Your task to perform on an android device: Play the new Demi Lovato video on YouTube Image 0: 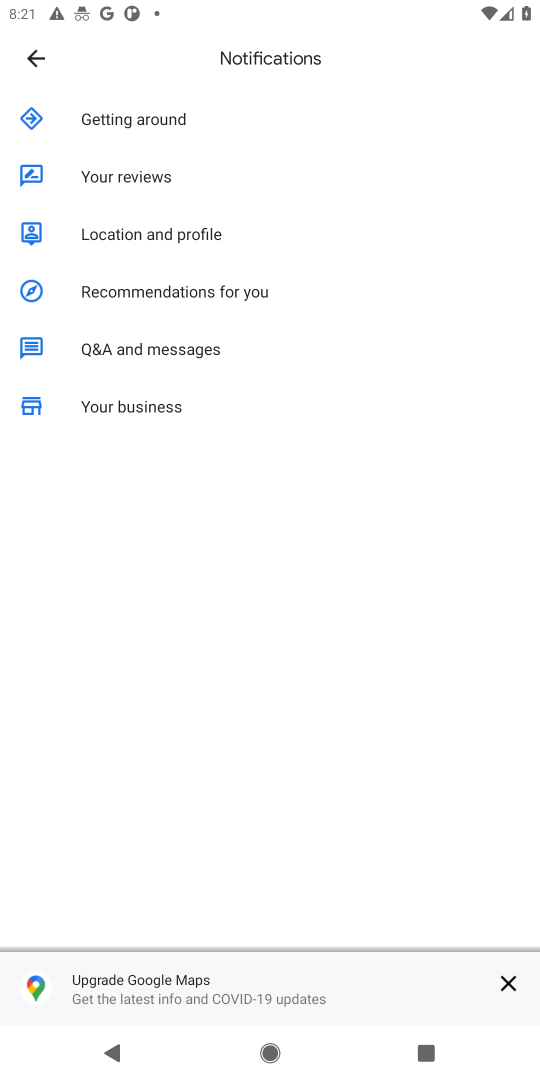
Step 0: press home button
Your task to perform on an android device: Play the new Demi Lovato video on YouTube Image 1: 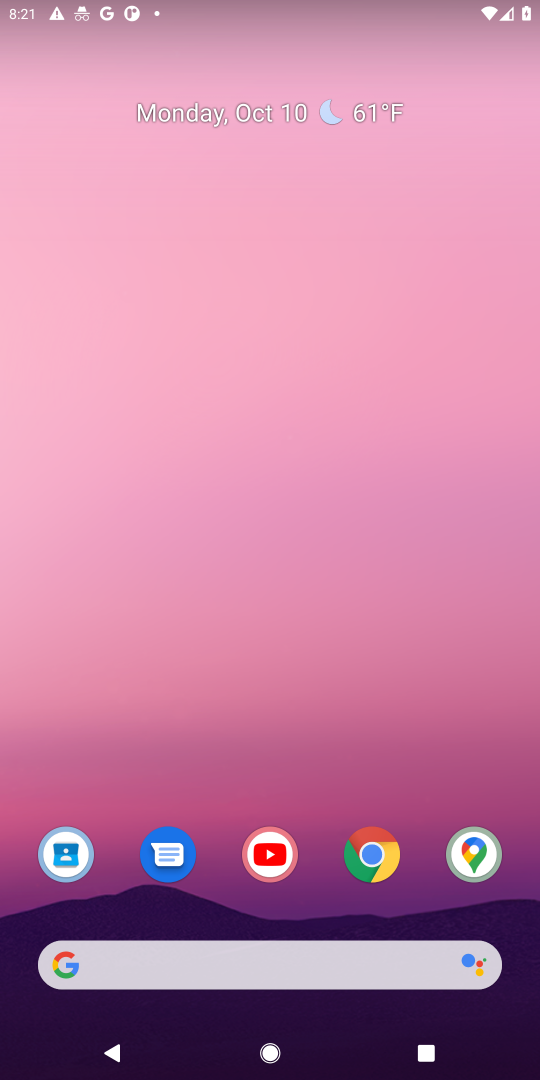
Step 1: click (264, 861)
Your task to perform on an android device: Play the new Demi Lovato video on YouTube Image 2: 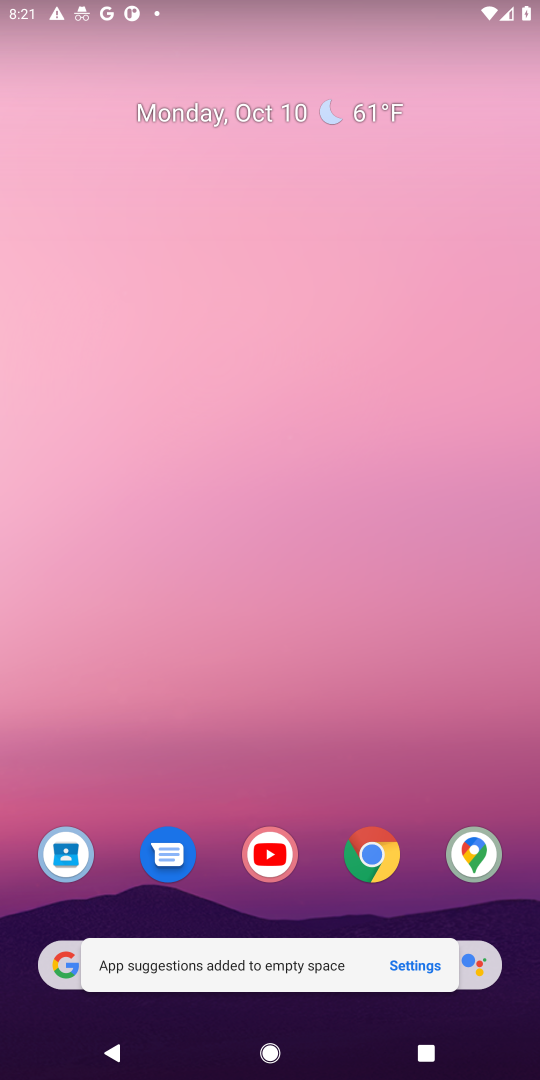
Step 2: click (268, 856)
Your task to perform on an android device: Play the new Demi Lovato video on YouTube Image 3: 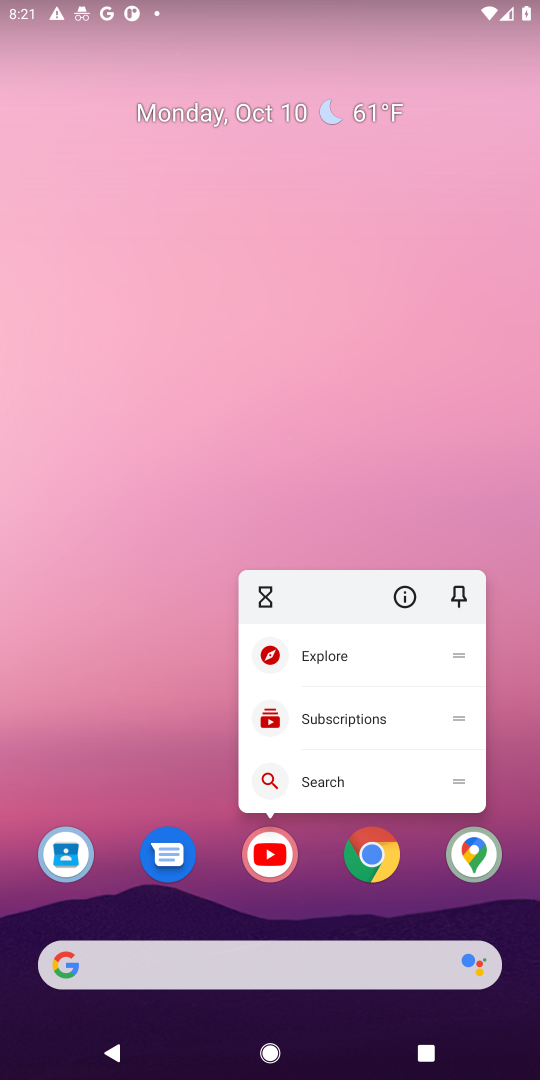
Step 3: click (268, 857)
Your task to perform on an android device: Play the new Demi Lovato video on YouTube Image 4: 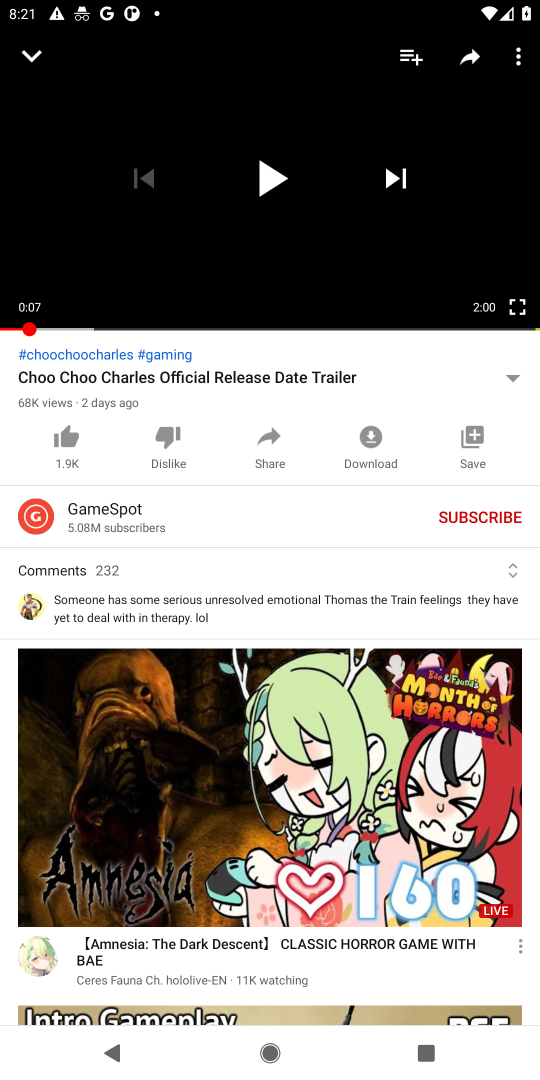
Step 4: press back button
Your task to perform on an android device: Play the new Demi Lovato video on YouTube Image 5: 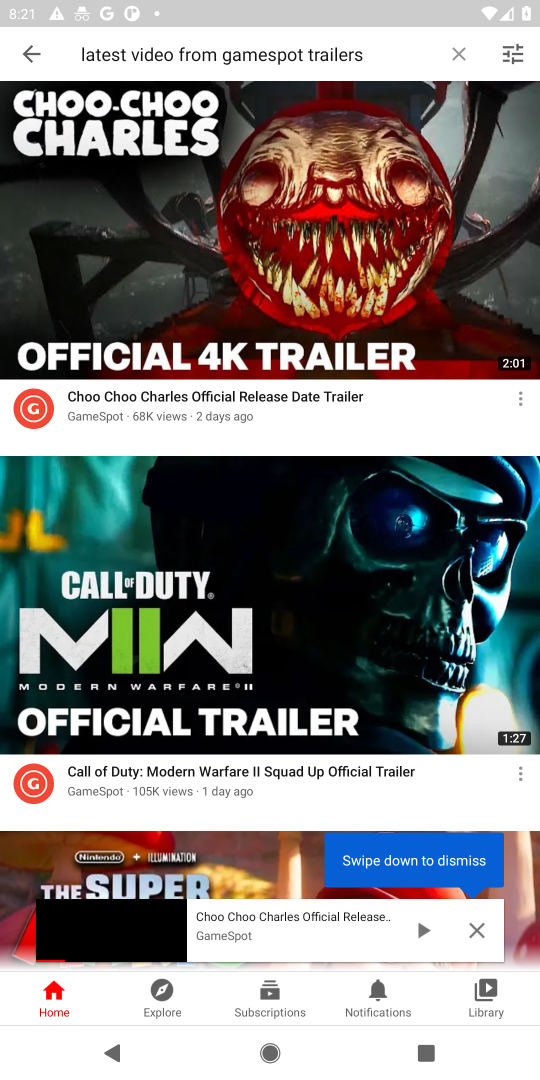
Step 5: click (456, 56)
Your task to perform on an android device: Play the new Demi Lovato video on YouTube Image 6: 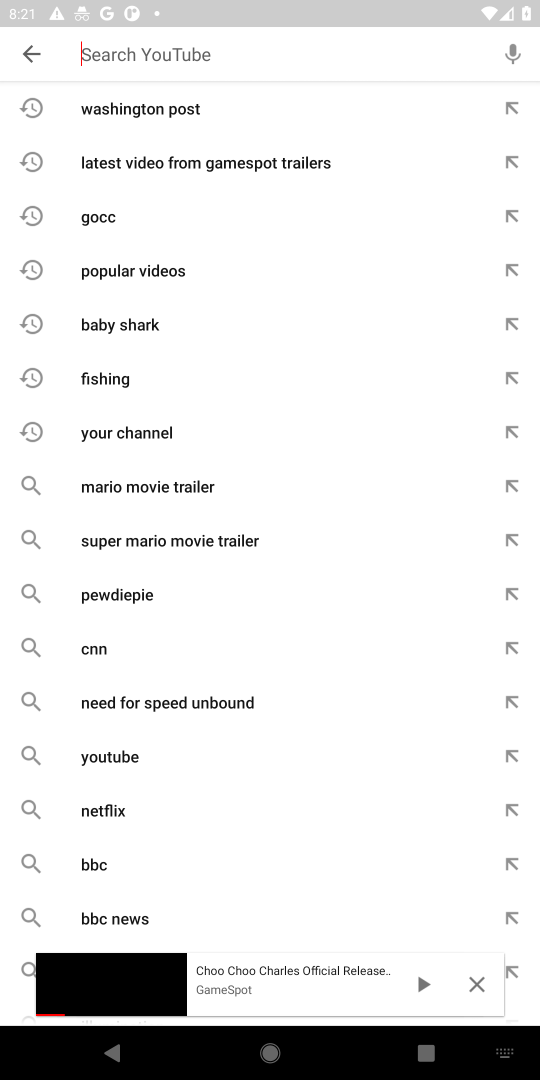
Step 6: click (193, 50)
Your task to perform on an android device: Play the new Demi Lovato video on YouTube Image 7: 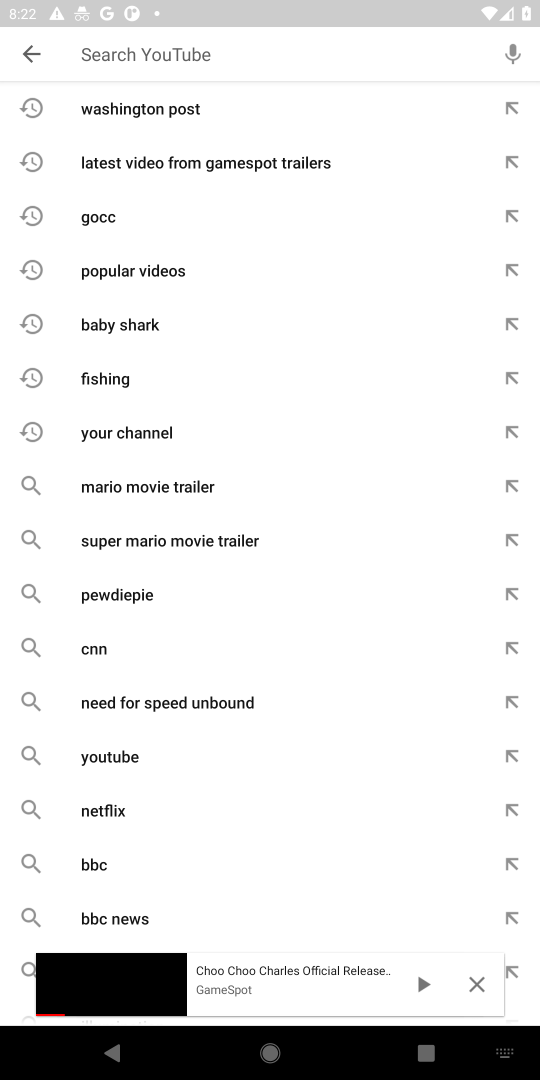
Step 7: type "new Demi Lovato video on YouTube"
Your task to perform on an android device: Play the new Demi Lovato video on YouTube Image 8: 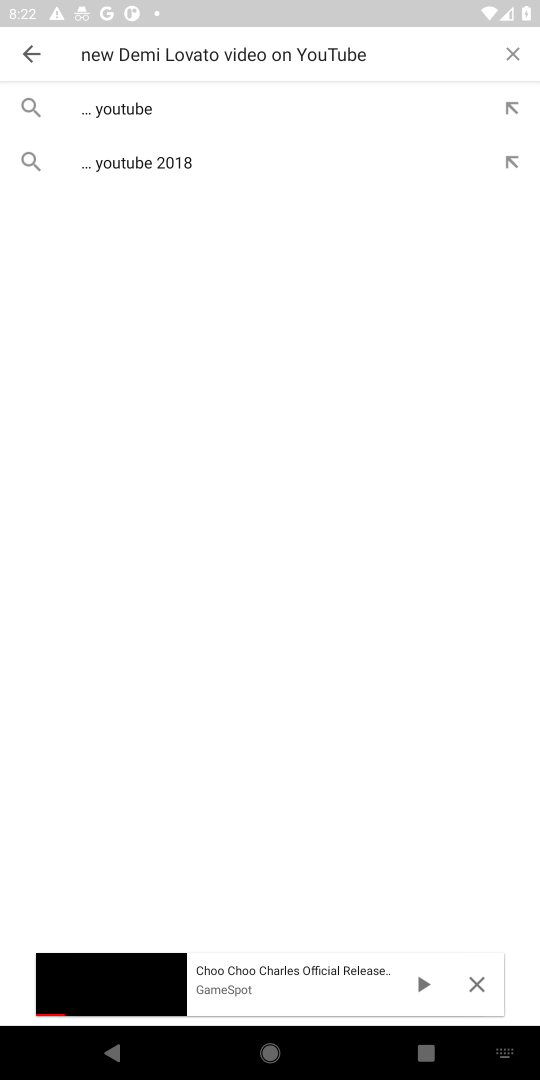
Step 8: click (146, 112)
Your task to perform on an android device: Play the new Demi Lovato video on YouTube Image 9: 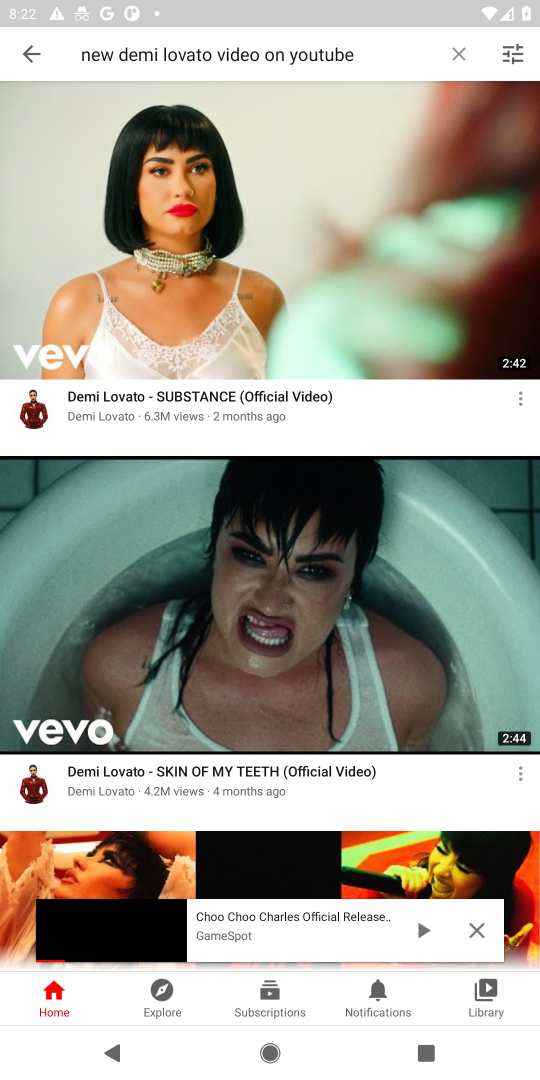
Step 9: click (472, 929)
Your task to perform on an android device: Play the new Demi Lovato video on YouTube Image 10: 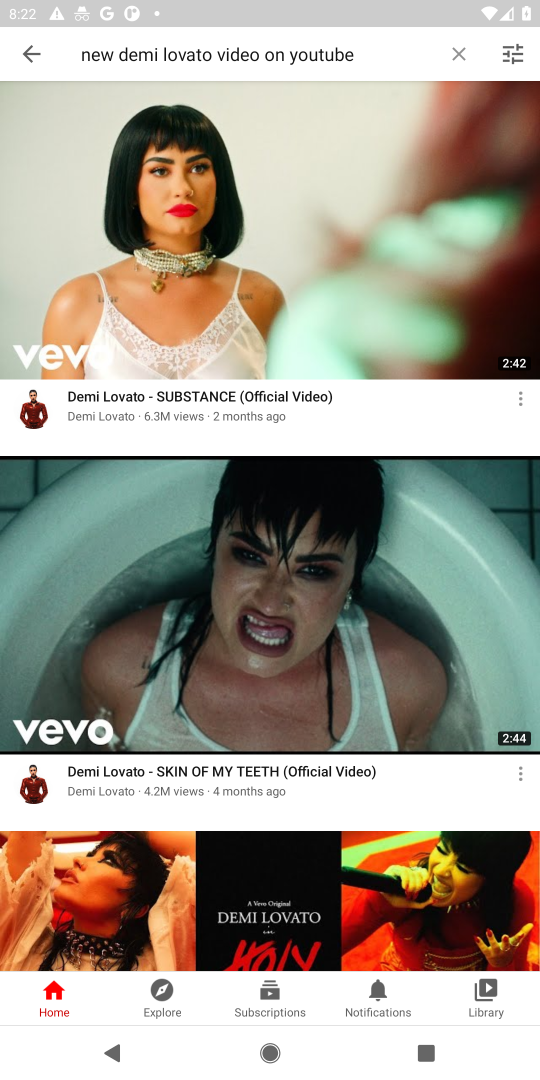
Step 10: click (342, 243)
Your task to perform on an android device: Play the new Demi Lovato video on YouTube Image 11: 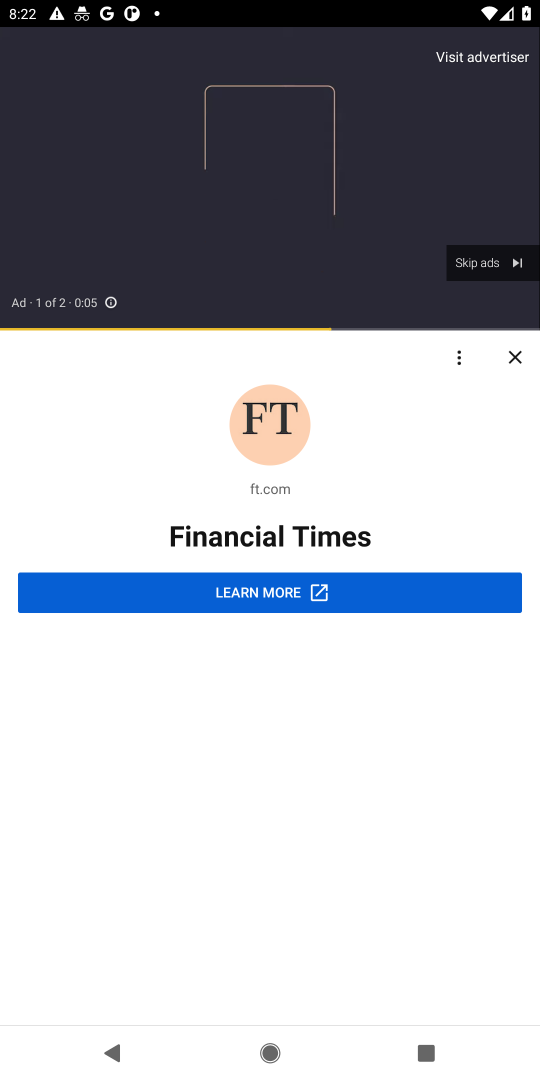
Step 11: click (488, 266)
Your task to perform on an android device: Play the new Demi Lovato video on YouTube Image 12: 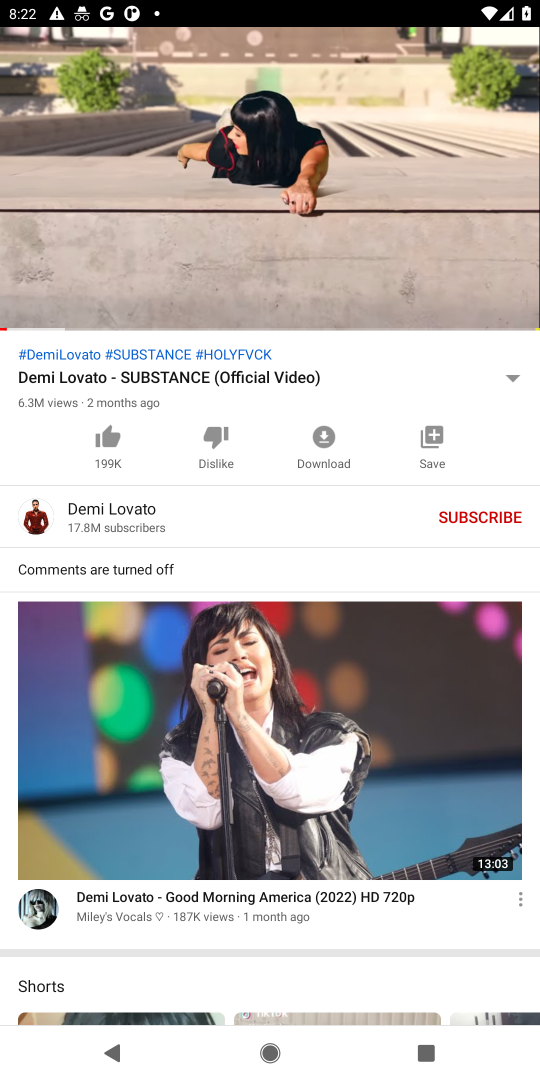
Step 12: click (291, 180)
Your task to perform on an android device: Play the new Demi Lovato video on YouTube Image 13: 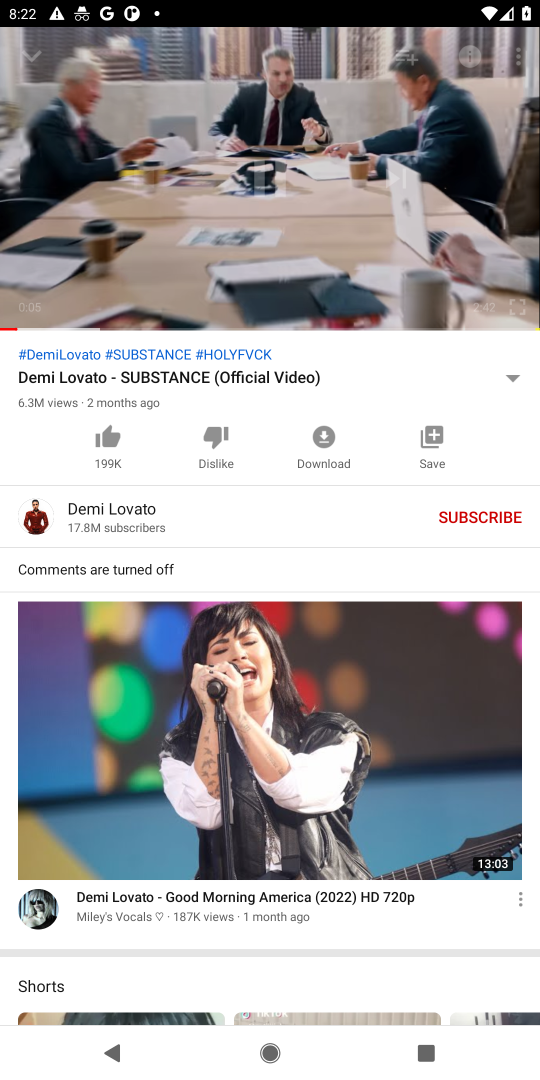
Step 13: click (269, 160)
Your task to perform on an android device: Play the new Demi Lovato video on YouTube Image 14: 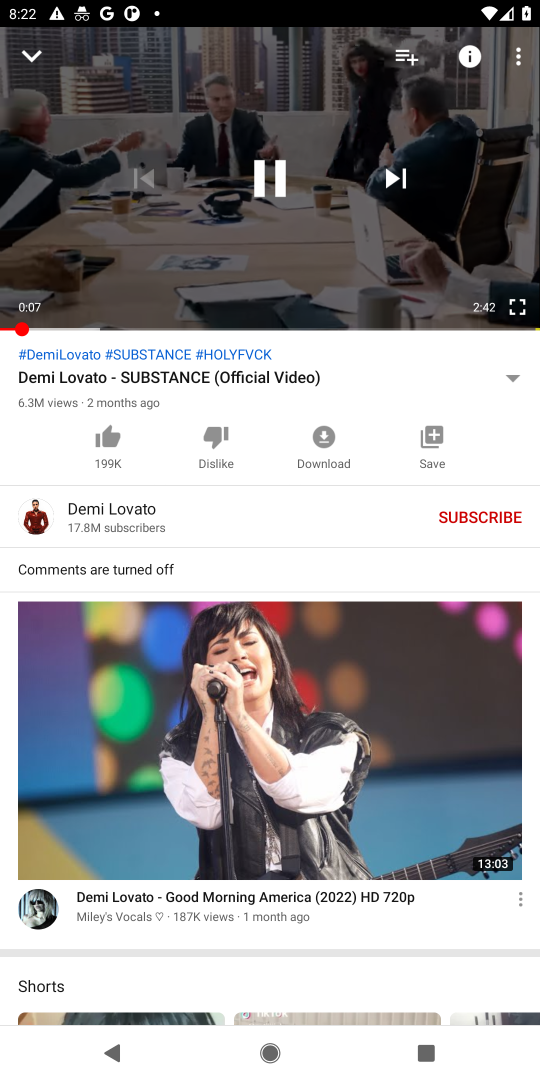
Step 14: click (271, 185)
Your task to perform on an android device: Play the new Demi Lovato video on YouTube Image 15: 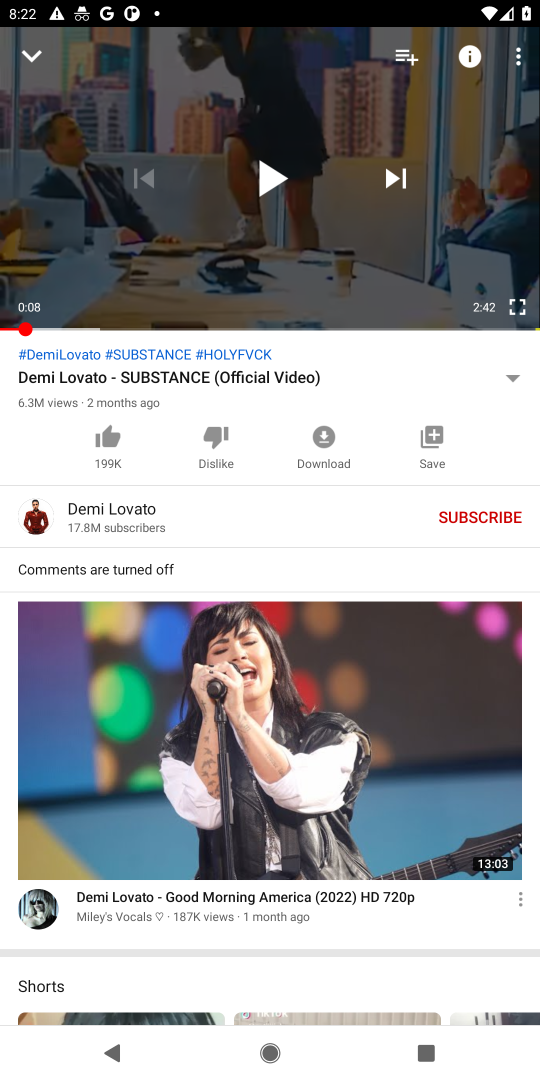
Step 15: task complete